Your task to perform on an android device: toggle wifi Image 0: 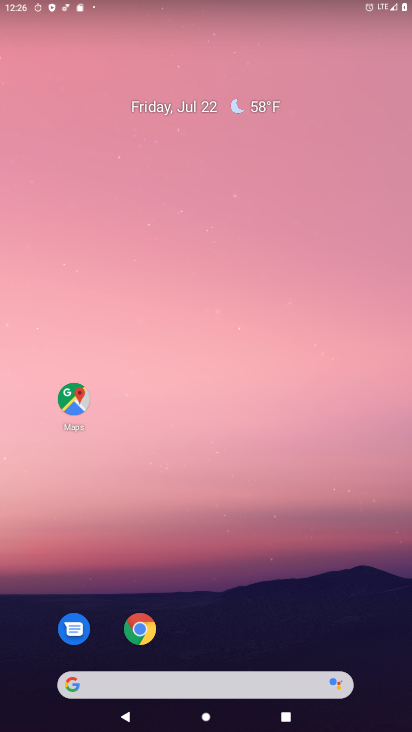
Step 0: drag from (334, 555) to (377, 105)
Your task to perform on an android device: toggle wifi Image 1: 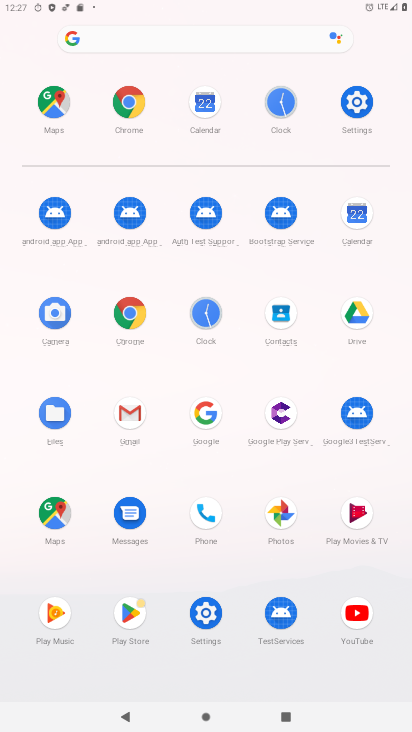
Step 1: click (359, 107)
Your task to perform on an android device: toggle wifi Image 2: 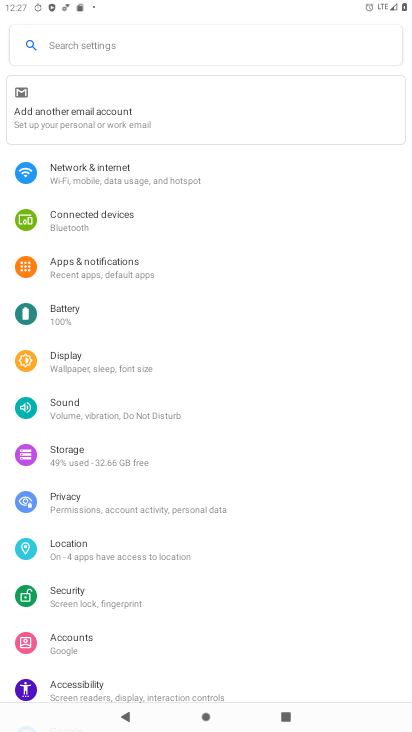
Step 2: drag from (334, 441) to (334, 396)
Your task to perform on an android device: toggle wifi Image 3: 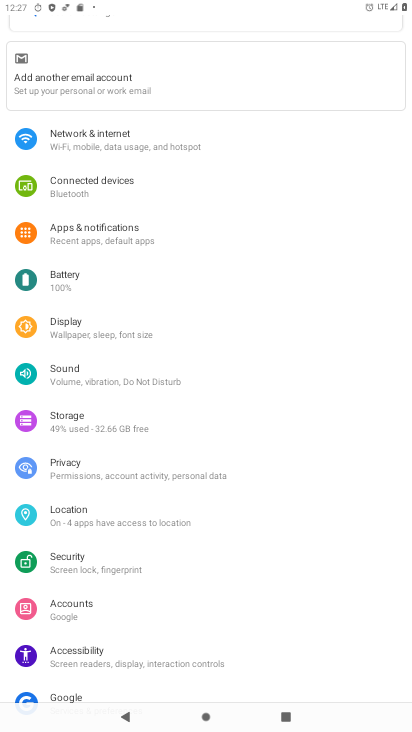
Step 3: drag from (322, 474) to (330, 419)
Your task to perform on an android device: toggle wifi Image 4: 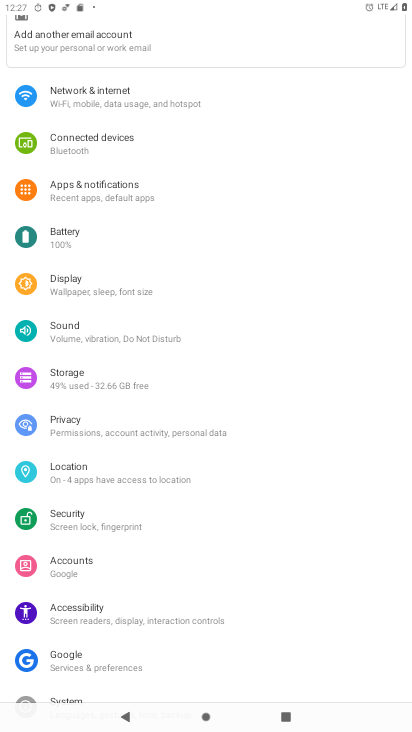
Step 4: drag from (336, 497) to (335, 426)
Your task to perform on an android device: toggle wifi Image 5: 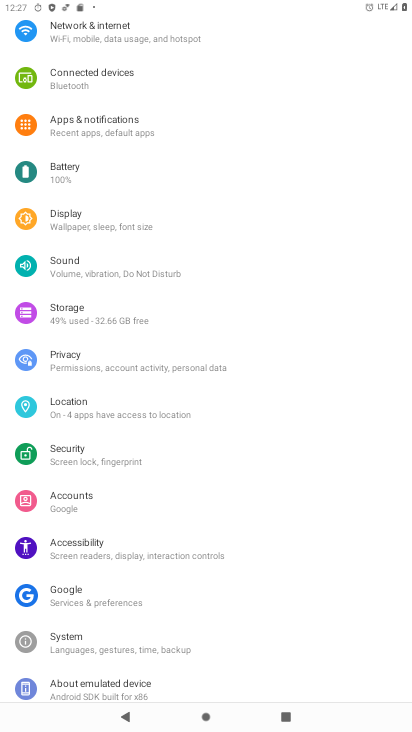
Step 5: drag from (322, 351) to (328, 420)
Your task to perform on an android device: toggle wifi Image 6: 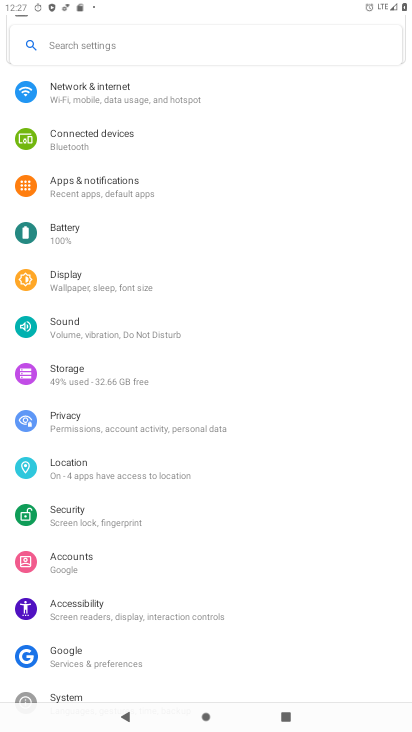
Step 6: drag from (331, 300) to (338, 435)
Your task to perform on an android device: toggle wifi Image 7: 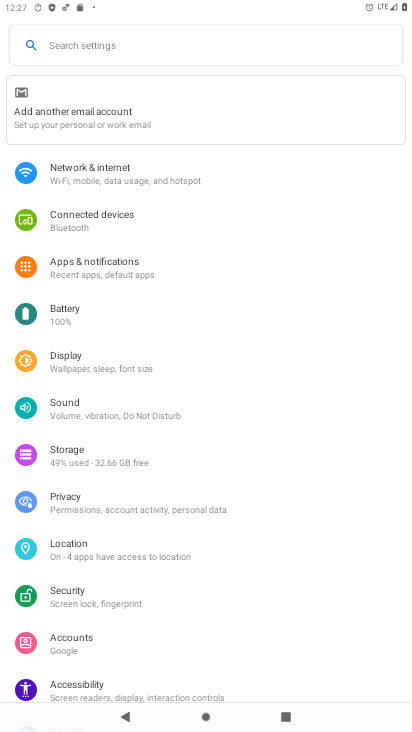
Step 7: click (200, 183)
Your task to perform on an android device: toggle wifi Image 8: 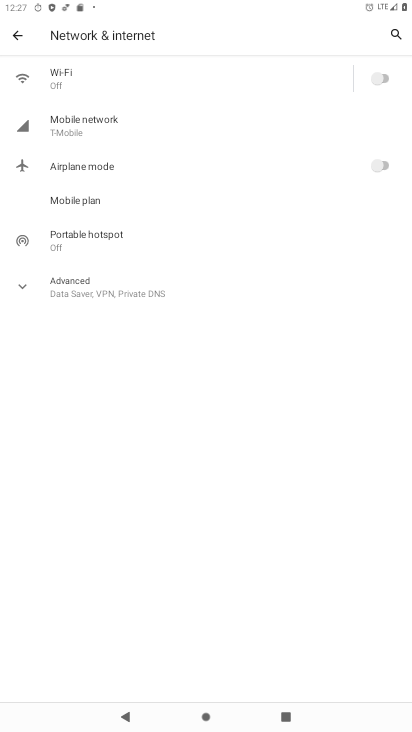
Step 8: click (375, 76)
Your task to perform on an android device: toggle wifi Image 9: 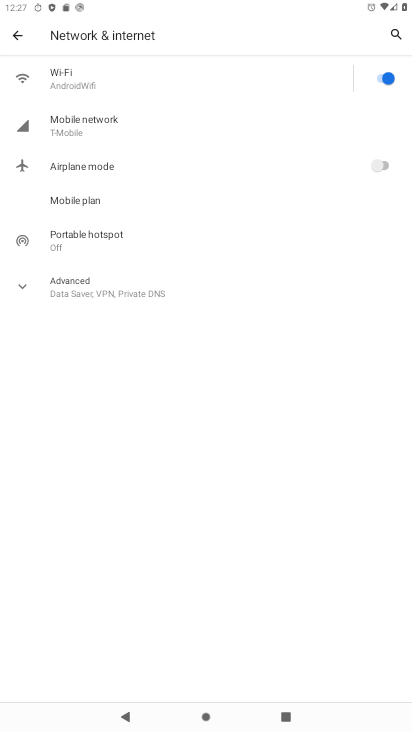
Step 9: task complete